Your task to perform on an android device: star an email in the gmail app Image 0: 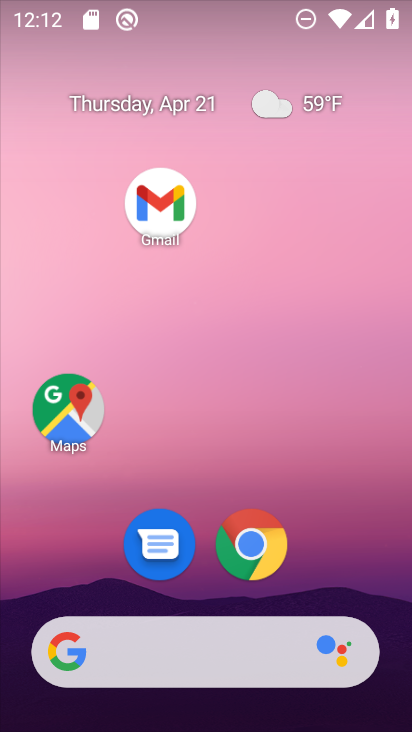
Step 0: drag from (270, 518) to (315, 34)
Your task to perform on an android device: star an email in the gmail app Image 1: 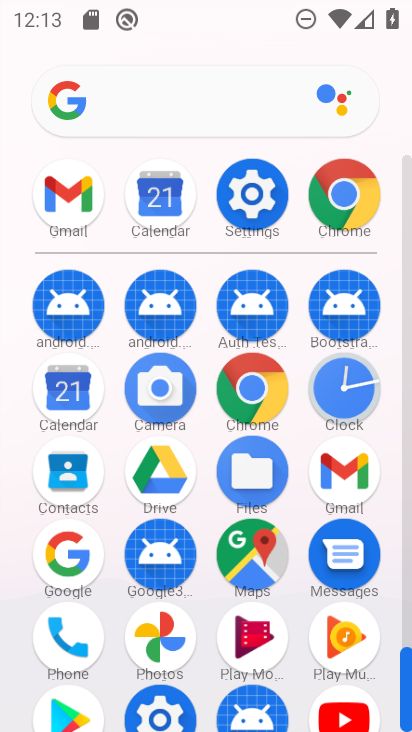
Step 1: click (364, 475)
Your task to perform on an android device: star an email in the gmail app Image 2: 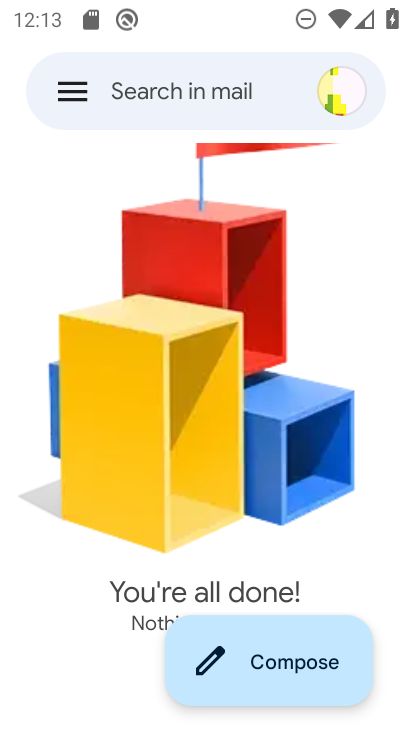
Step 2: click (72, 79)
Your task to perform on an android device: star an email in the gmail app Image 3: 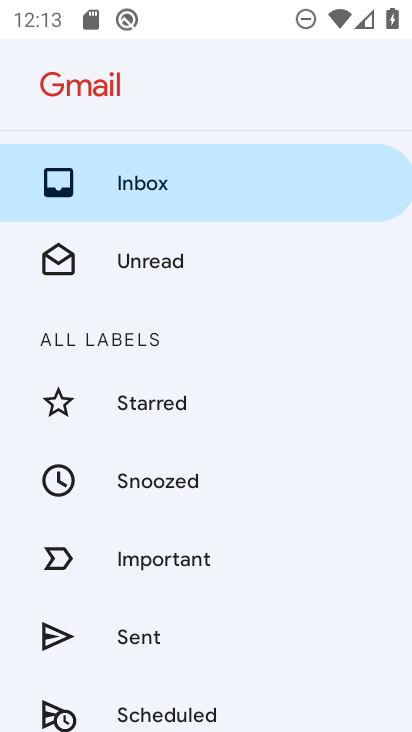
Step 3: drag from (175, 570) to (222, 123)
Your task to perform on an android device: star an email in the gmail app Image 4: 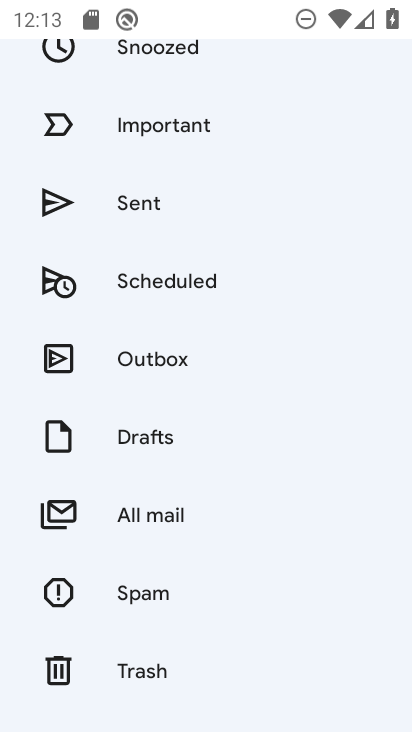
Step 4: click (160, 512)
Your task to perform on an android device: star an email in the gmail app Image 5: 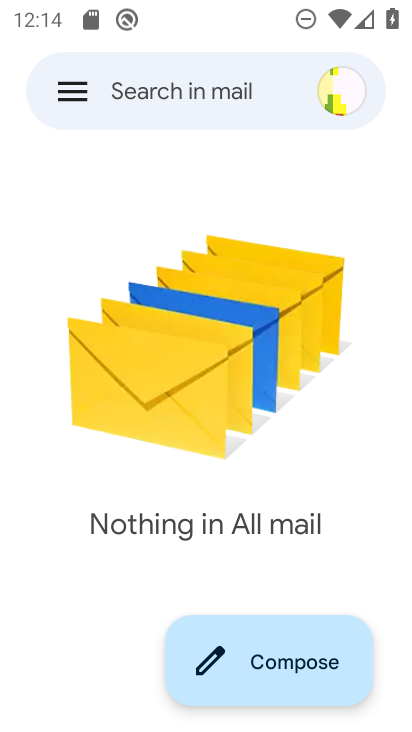
Step 5: click (81, 89)
Your task to perform on an android device: star an email in the gmail app Image 6: 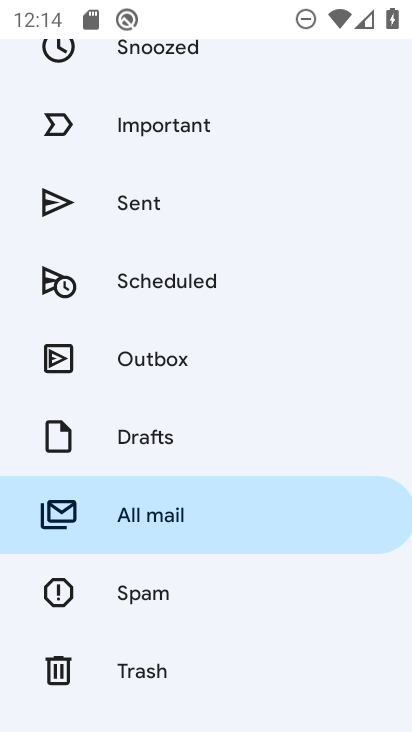
Step 6: click (215, 517)
Your task to perform on an android device: star an email in the gmail app Image 7: 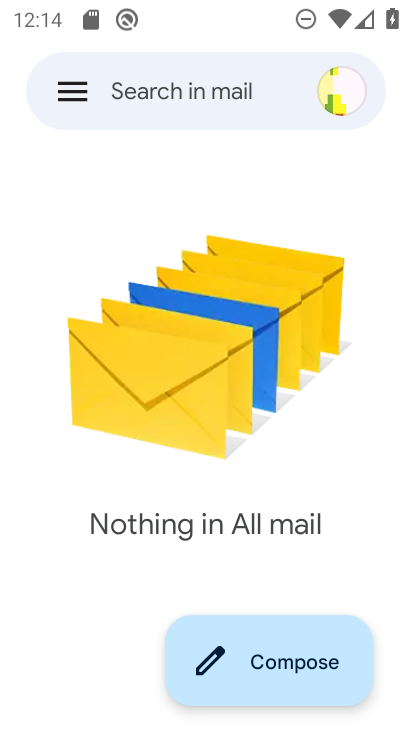
Step 7: task complete